Your task to perform on an android device: Go to network settings Image 0: 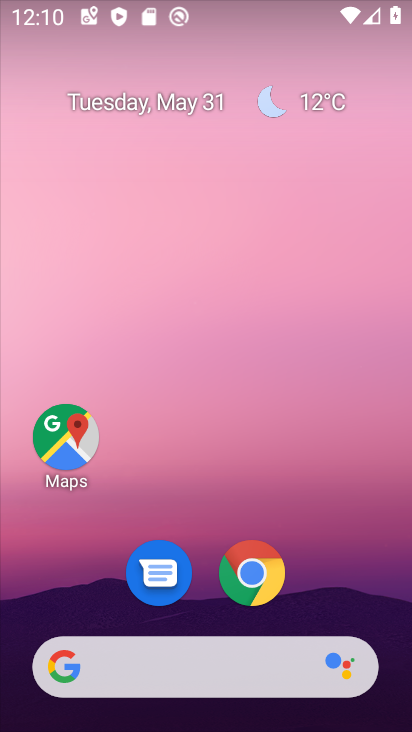
Step 0: drag from (353, 553) to (356, 159)
Your task to perform on an android device: Go to network settings Image 1: 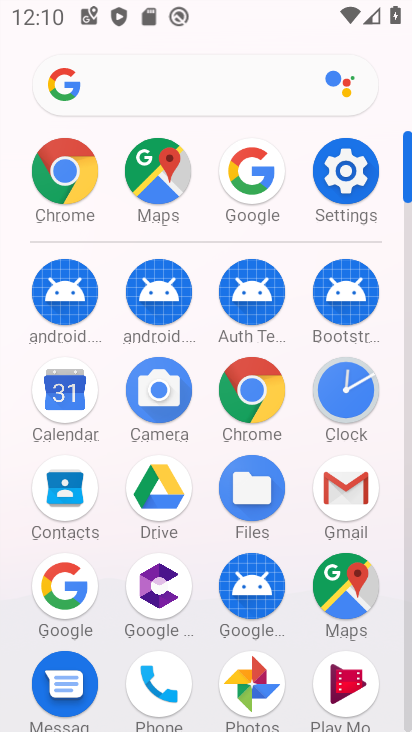
Step 1: click (355, 192)
Your task to perform on an android device: Go to network settings Image 2: 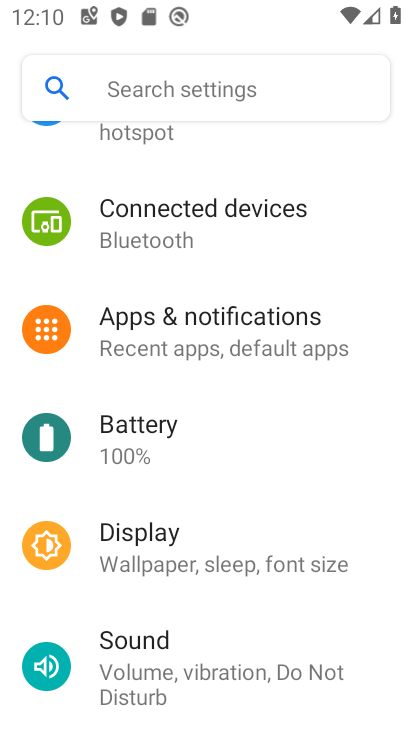
Step 2: drag from (180, 251) to (299, 647)
Your task to perform on an android device: Go to network settings Image 3: 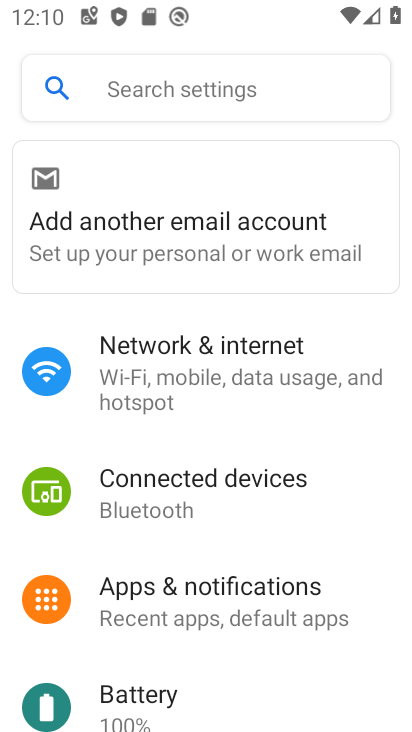
Step 3: click (191, 373)
Your task to perform on an android device: Go to network settings Image 4: 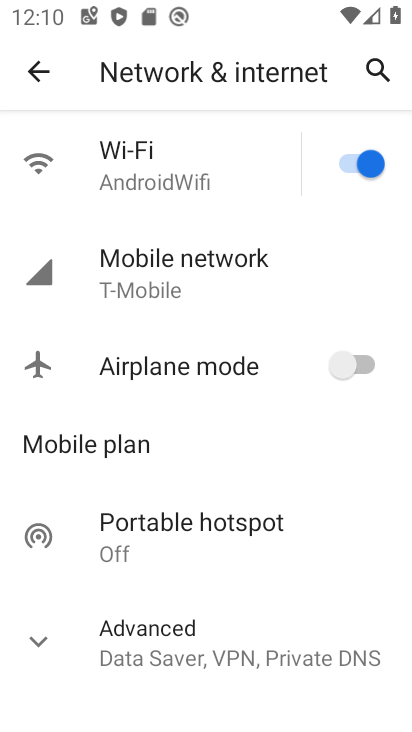
Step 4: task complete